Your task to perform on an android device: Open network settings Image 0: 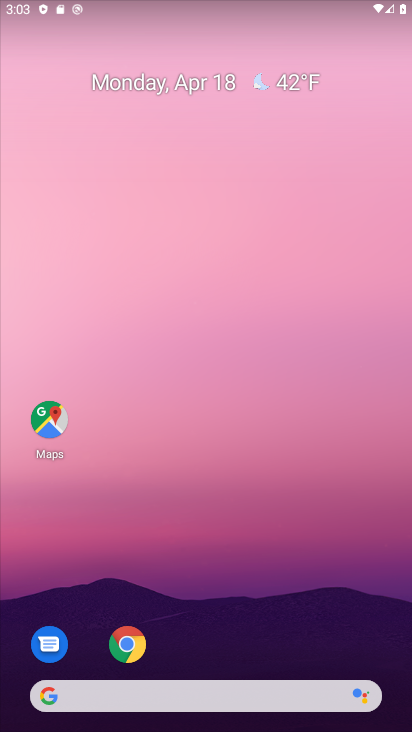
Step 0: drag from (223, 675) to (292, 194)
Your task to perform on an android device: Open network settings Image 1: 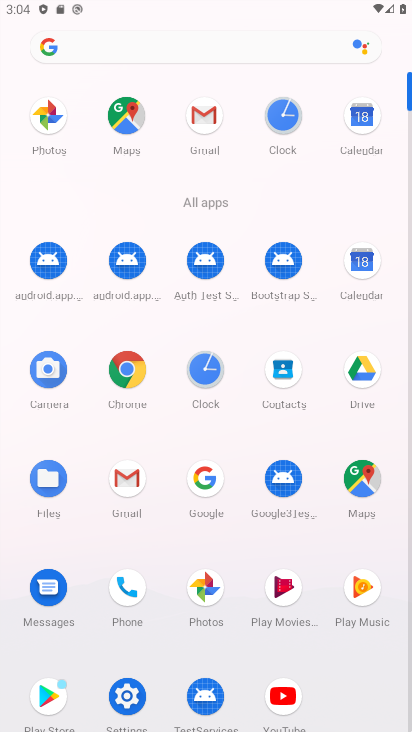
Step 1: click (125, 699)
Your task to perform on an android device: Open network settings Image 2: 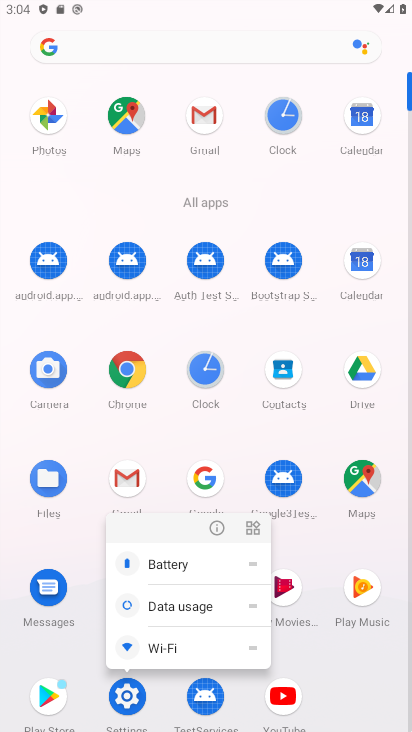
Step 2: click (113, 705)
Your task to perform on an android device: Open network settings Image 3: 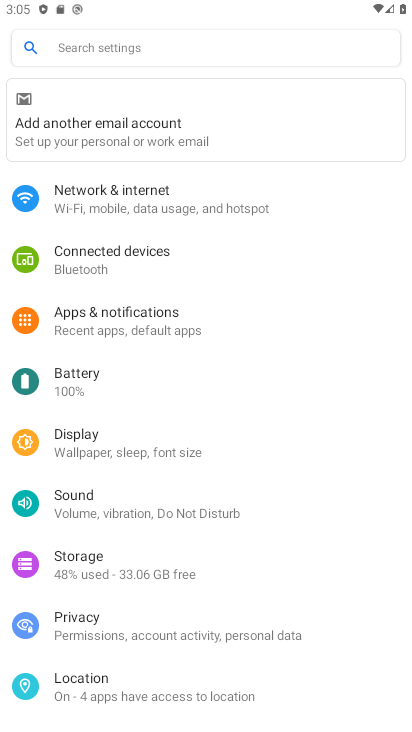
Step 3: click (121, 201)
Your task to perform on an android device: Open network settings Image 4: 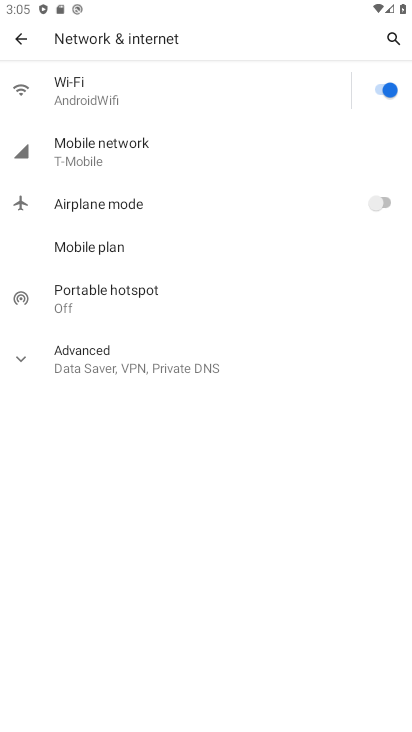
Step 4: click (123, 155)
Your task to perform on an android device: Open network settings Image 5: 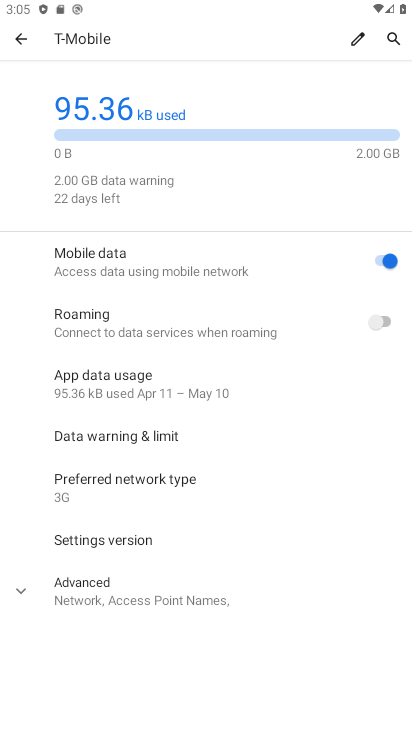
Step 5: task complete